Your task to perform on an android device: add a contact Image 0: 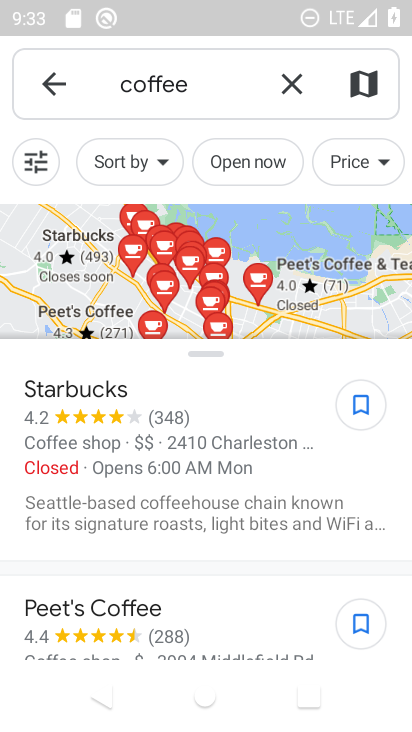
Step 0: press home button
Your task to perform on an android device: add a contact Image 1: 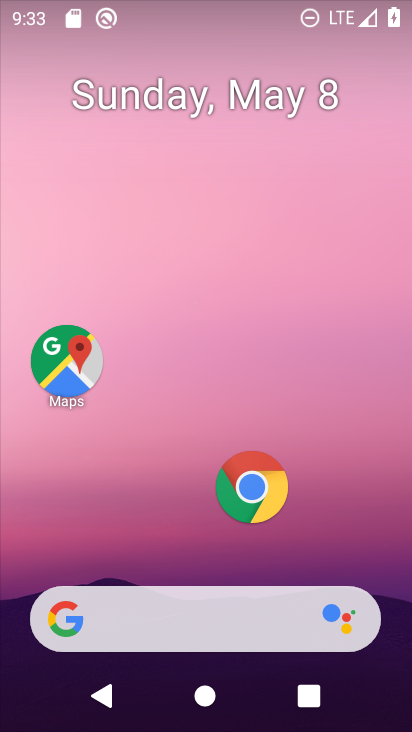
Step 1: drag from (184, 540) to (220, 86)
Your task to perform on an android device: add a contact Image 2: 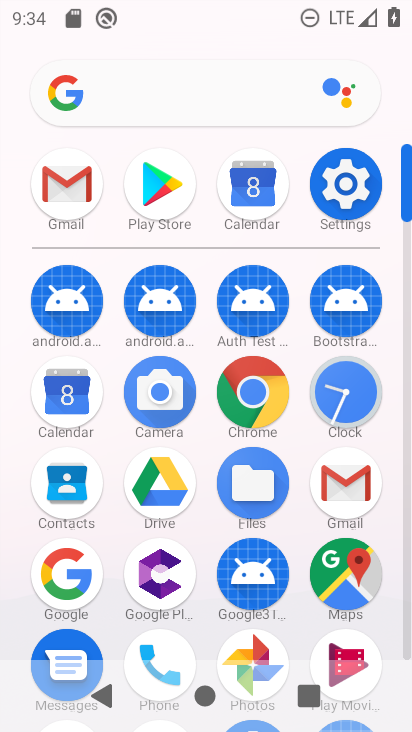
Step 2: click (76, 492)
Your task to perform on an android device: add a contact Image 3: 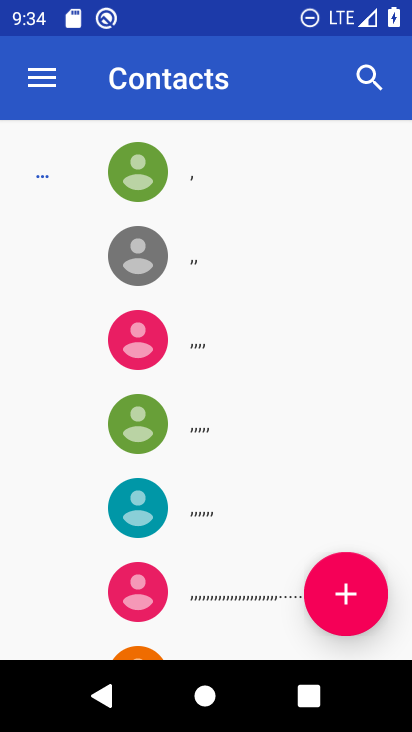
Step 3: click (345, 599)
Your task to perform on an android device: add a contact Image 4: 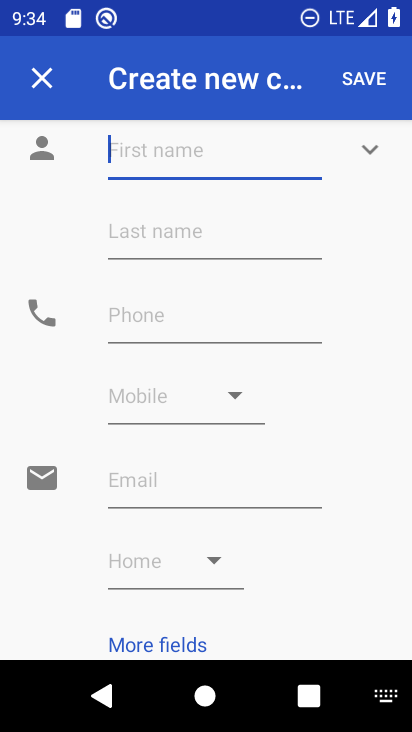
Step 4: type "Jambu Dweep"
Your task to perform on an android device: add a contact Image 5: 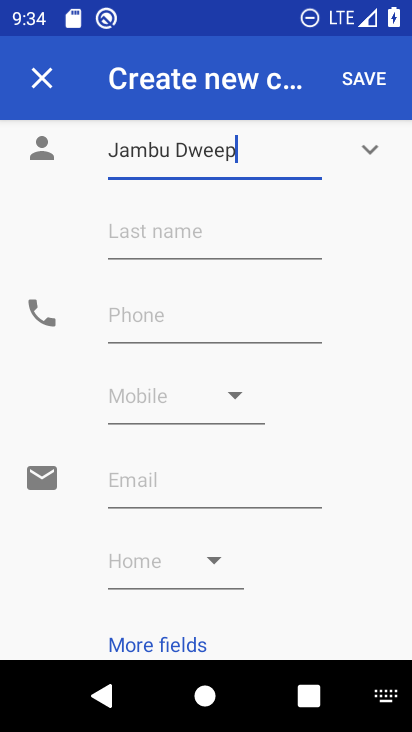
Step 5: click (191, 226)
Your task to perform on an android device: add a contact Image 6: 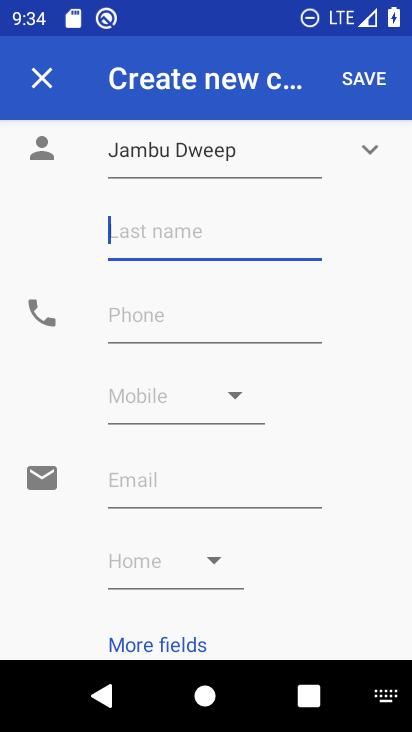
Step 6: type "Bharatvarsha"
Your task to perform on an android device: add a contact Image 7: 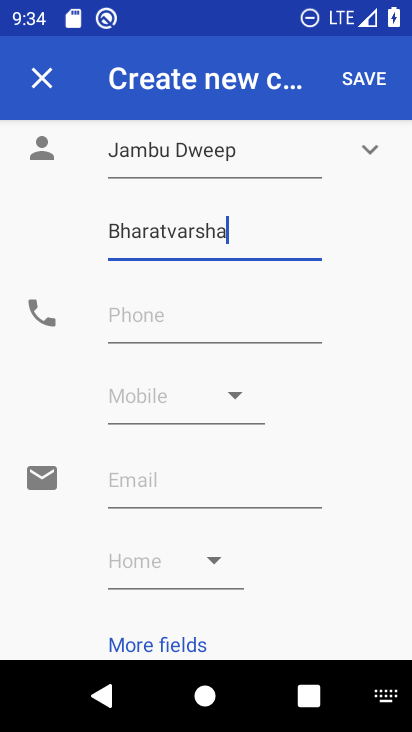
Step 7: click (174, 320)
Your task to perform on an android device: add a contact Image 8: 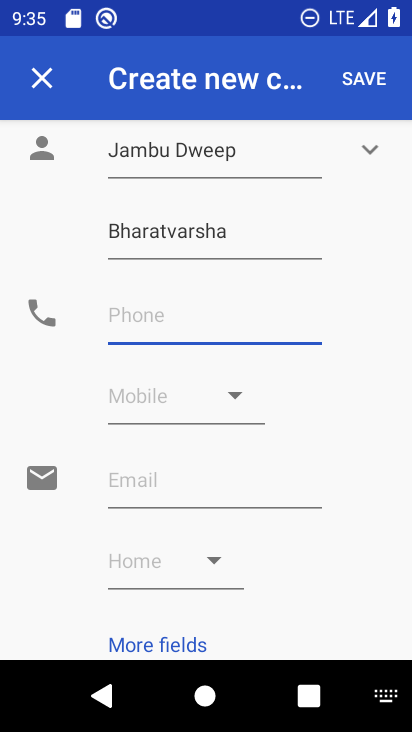
Step 8: type "999999999999"
Your task to perform on an android device: add a contact Image 9: 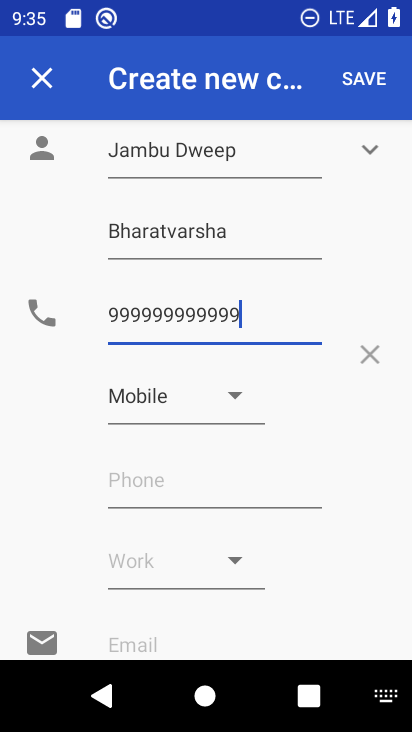
Step 9: click (374, 83)
Your task to perform on an android device: add a contact Image 10: 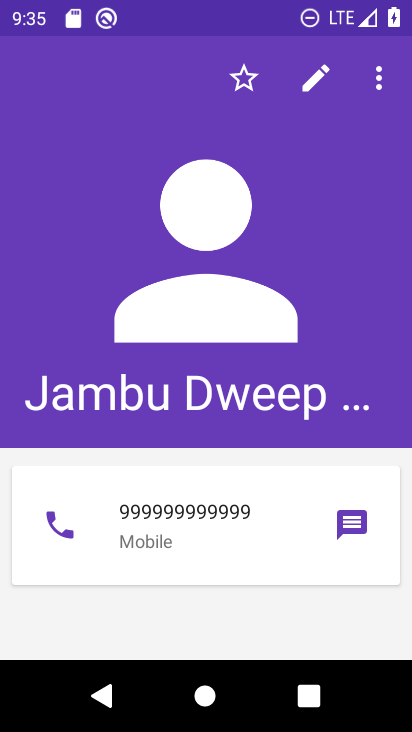
Step 10: task complete